Your task to perform on an android device: Add "macbook air" to the cart on bestbuy Image 0: 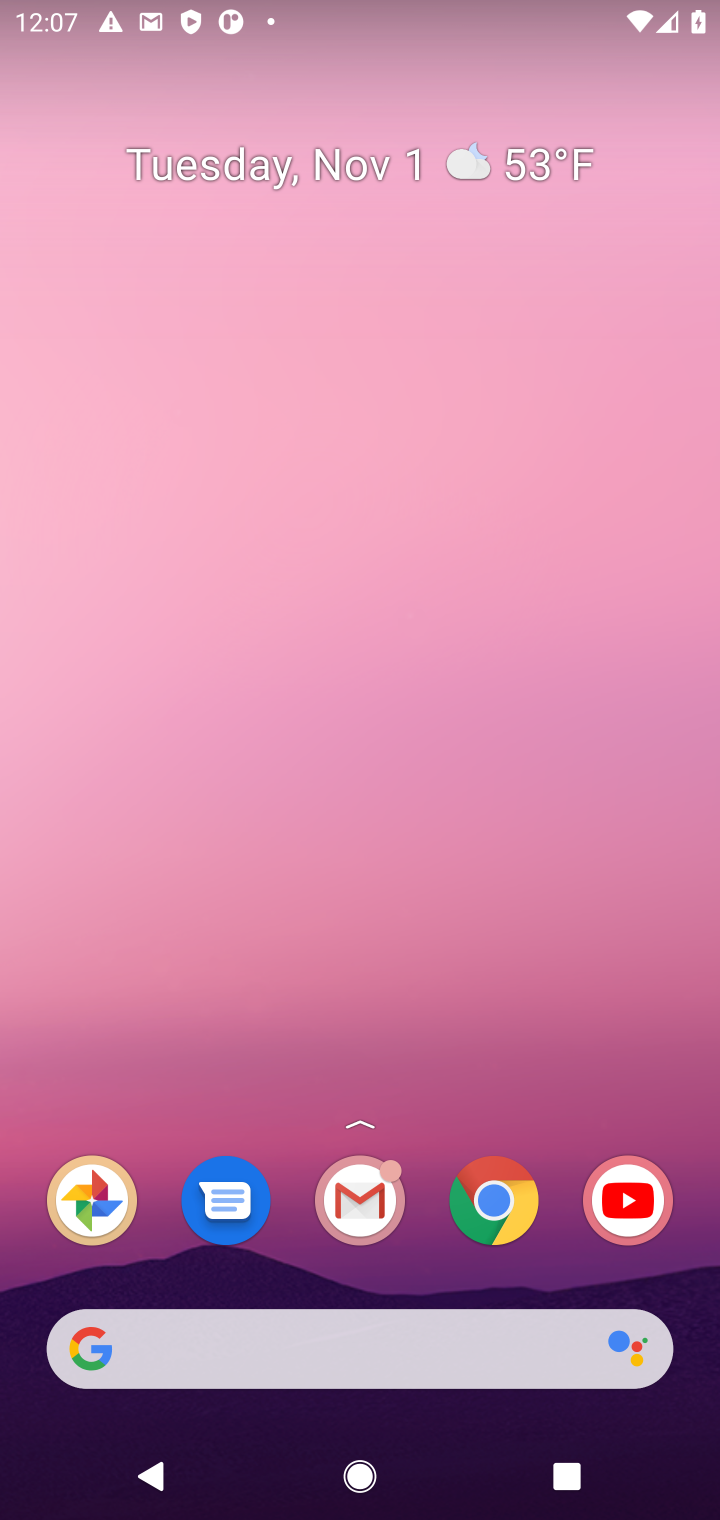
Step 0: click (491, 1205)
Your task to perform on an android device: Add "macbook air" to the cart on bestbuy Image 1: 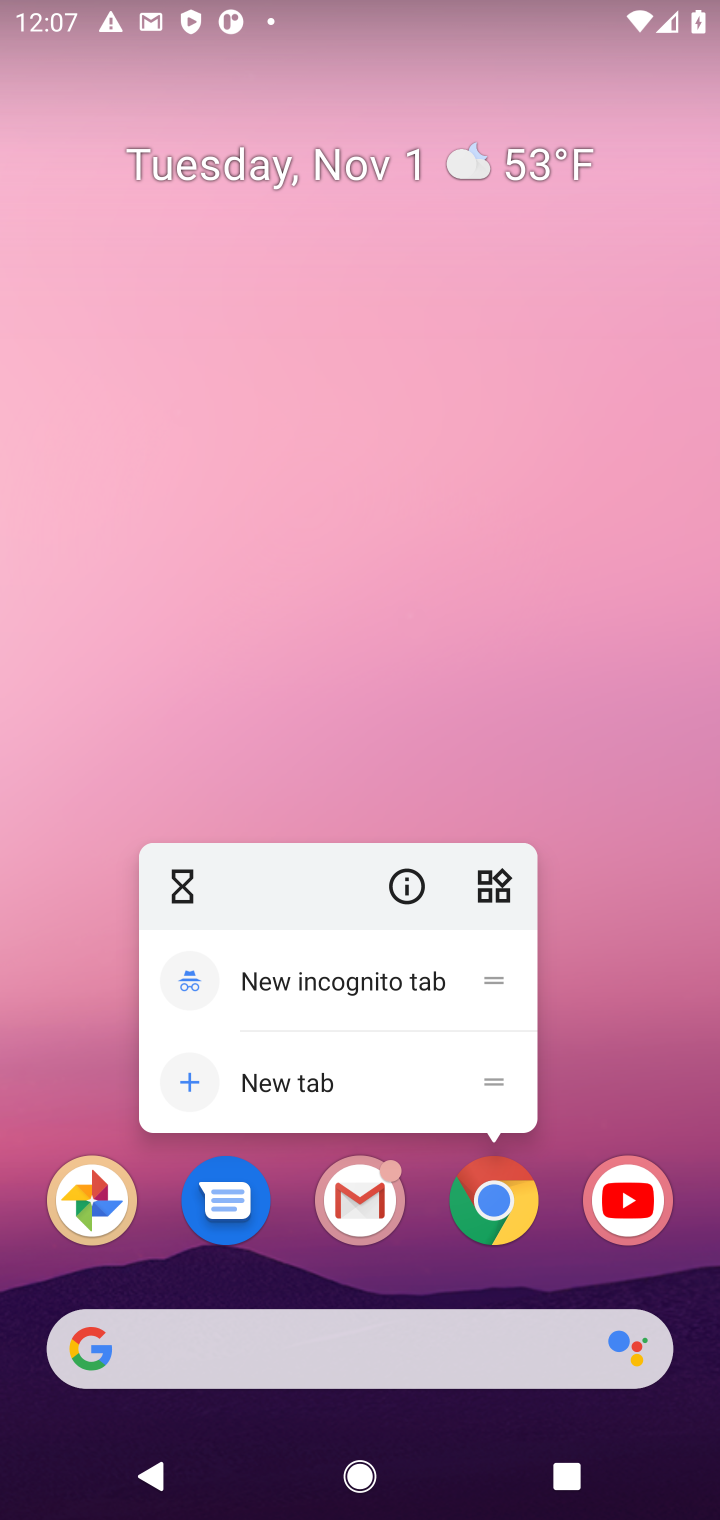
Step 1: click (493, 1193)
Your task to perform on an android device: Add "macbook air" to the cart on bestbuy Image 2: 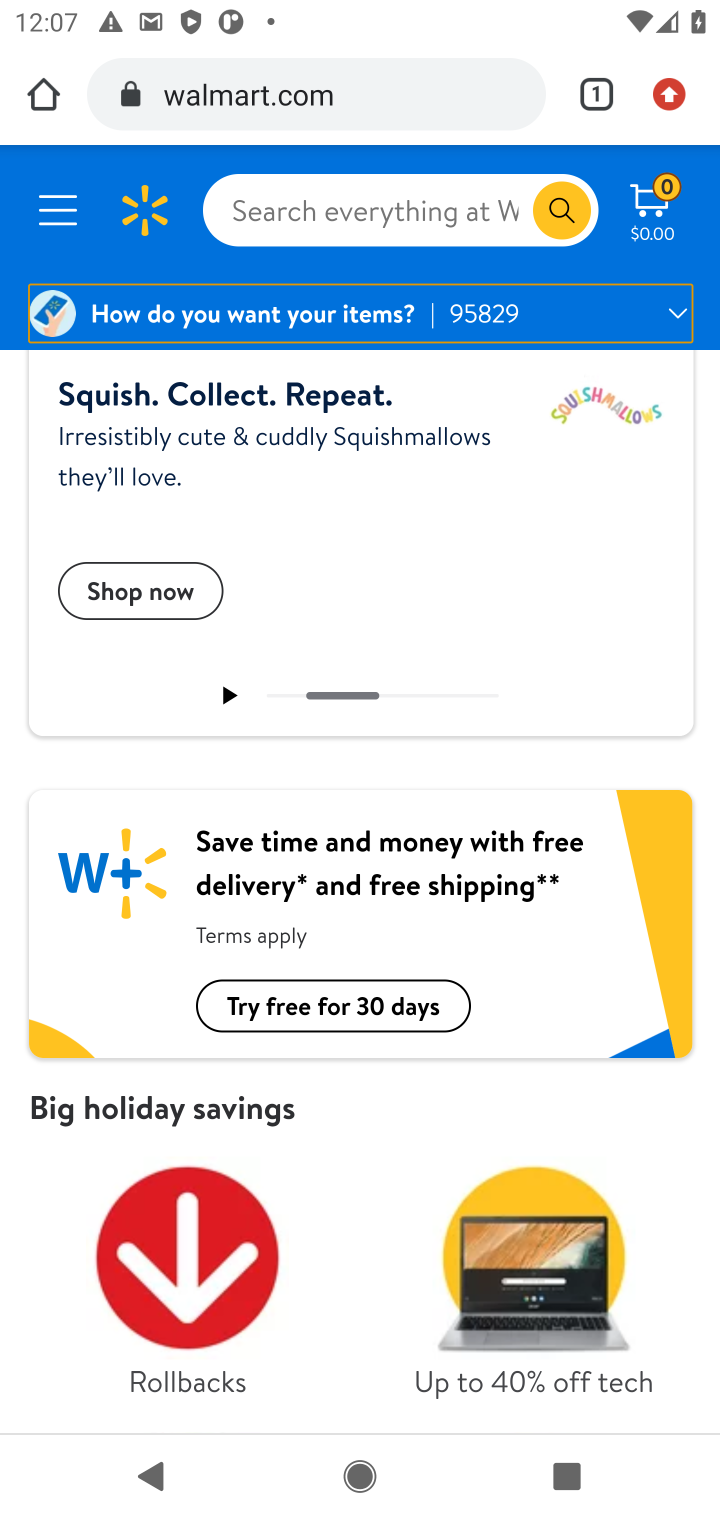
Step 2: click (282, 117)
Your task to perform on an android device: Add "macbook air" to the cart on bestbuy Image 3: 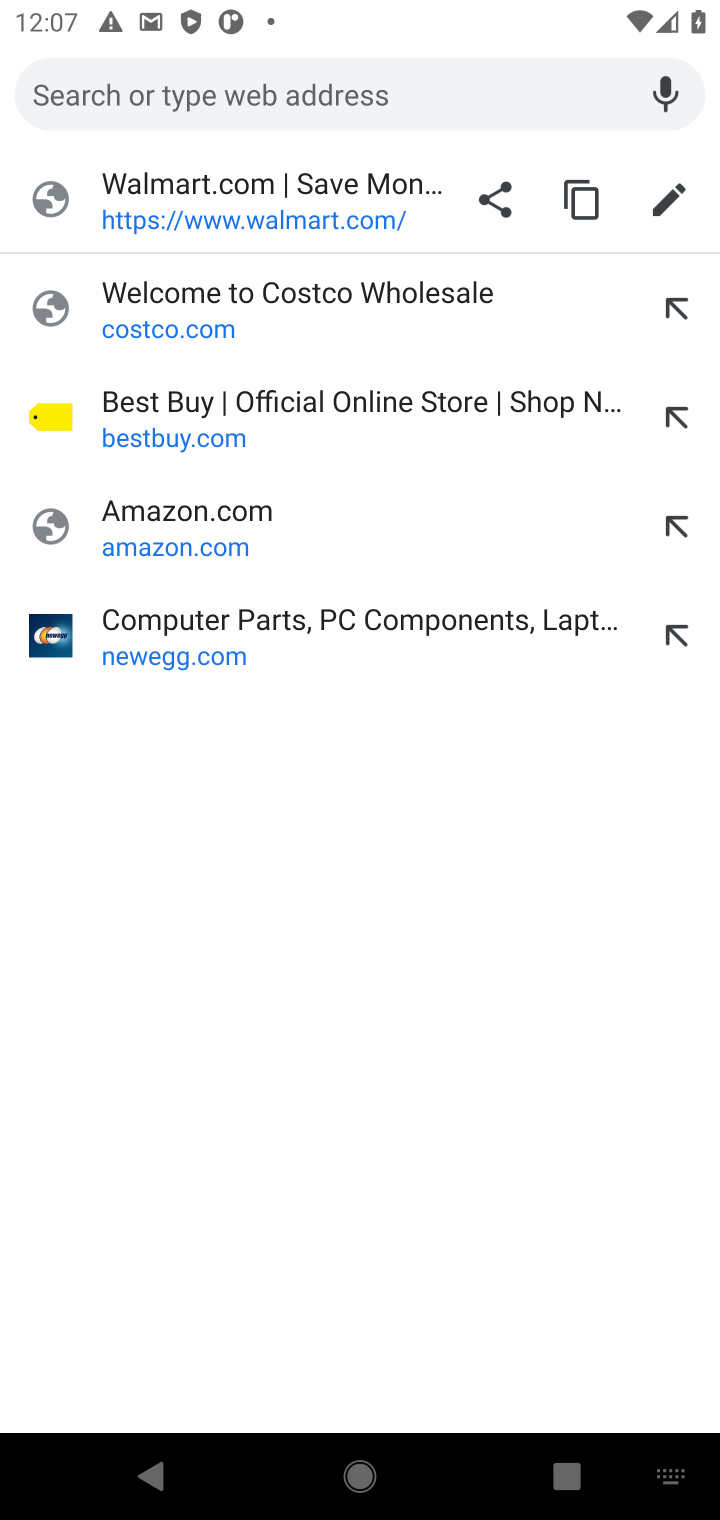
Step 3: click (231, 414)
Your task to perform on an android device: Add "macbook air" to the cart on bestbuy Image 4: 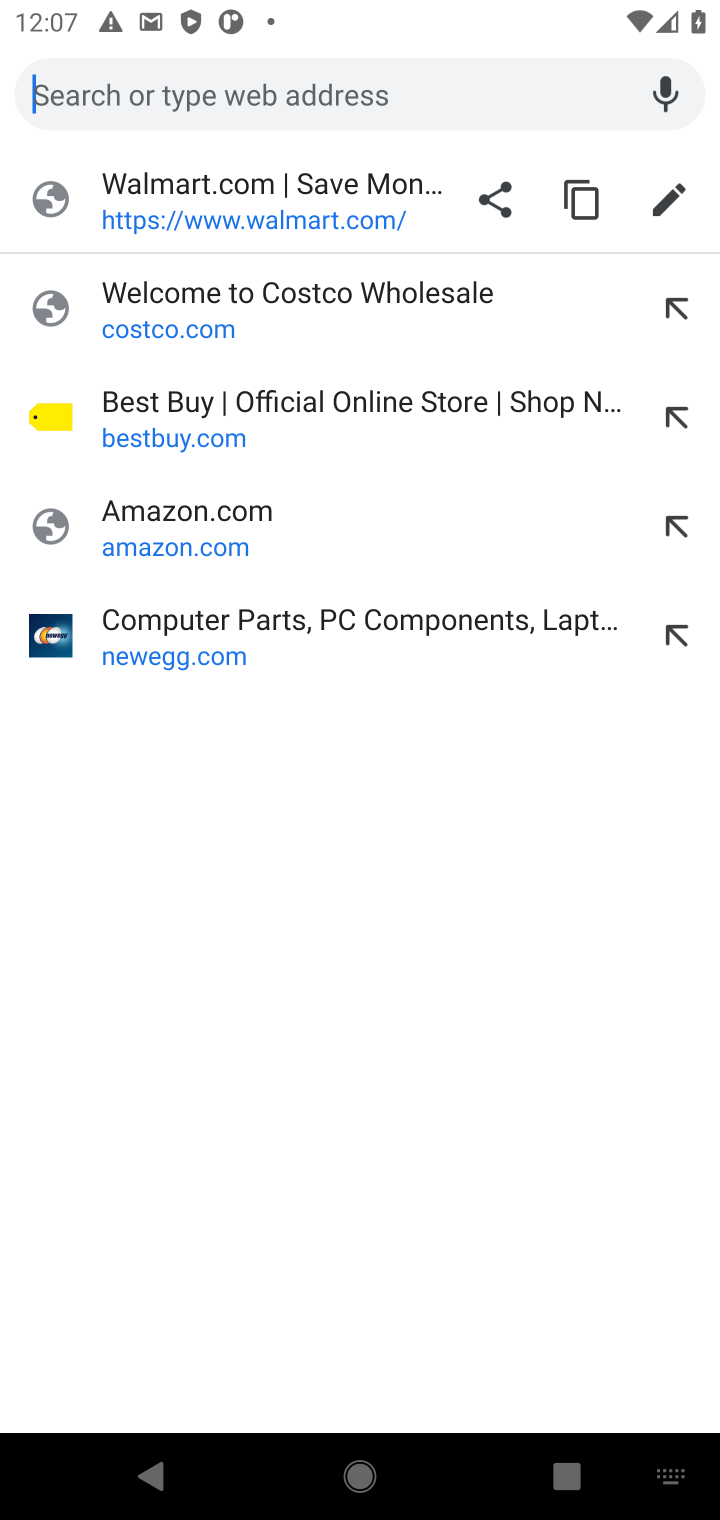
Step 4: click (233, 429)
Your task to perform on an android device: Add "macbook air" to the cart on bestbuy Image 5: 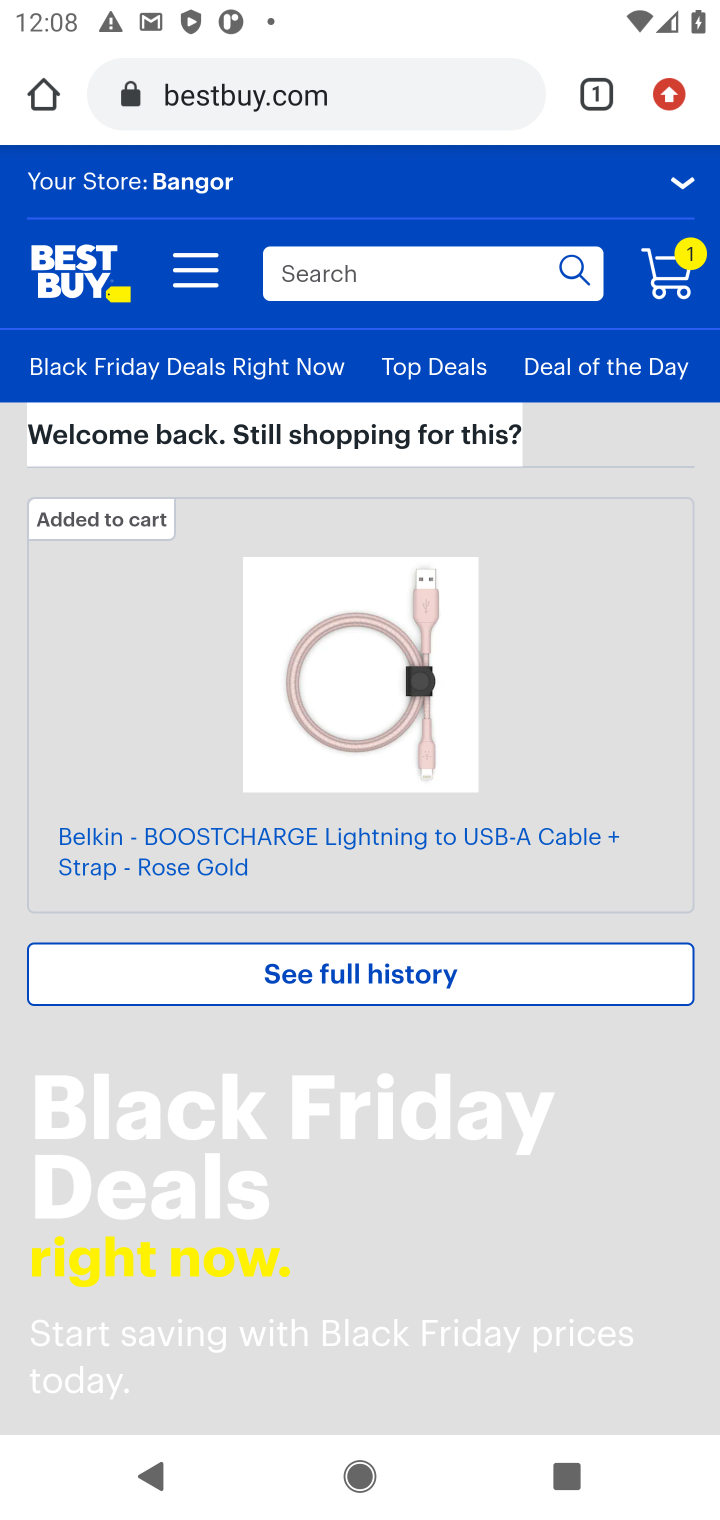
Step 5: click (477, 265)
Your task to perform on an android device: Add "macbook air" to the cart on bestbuy Image 6: 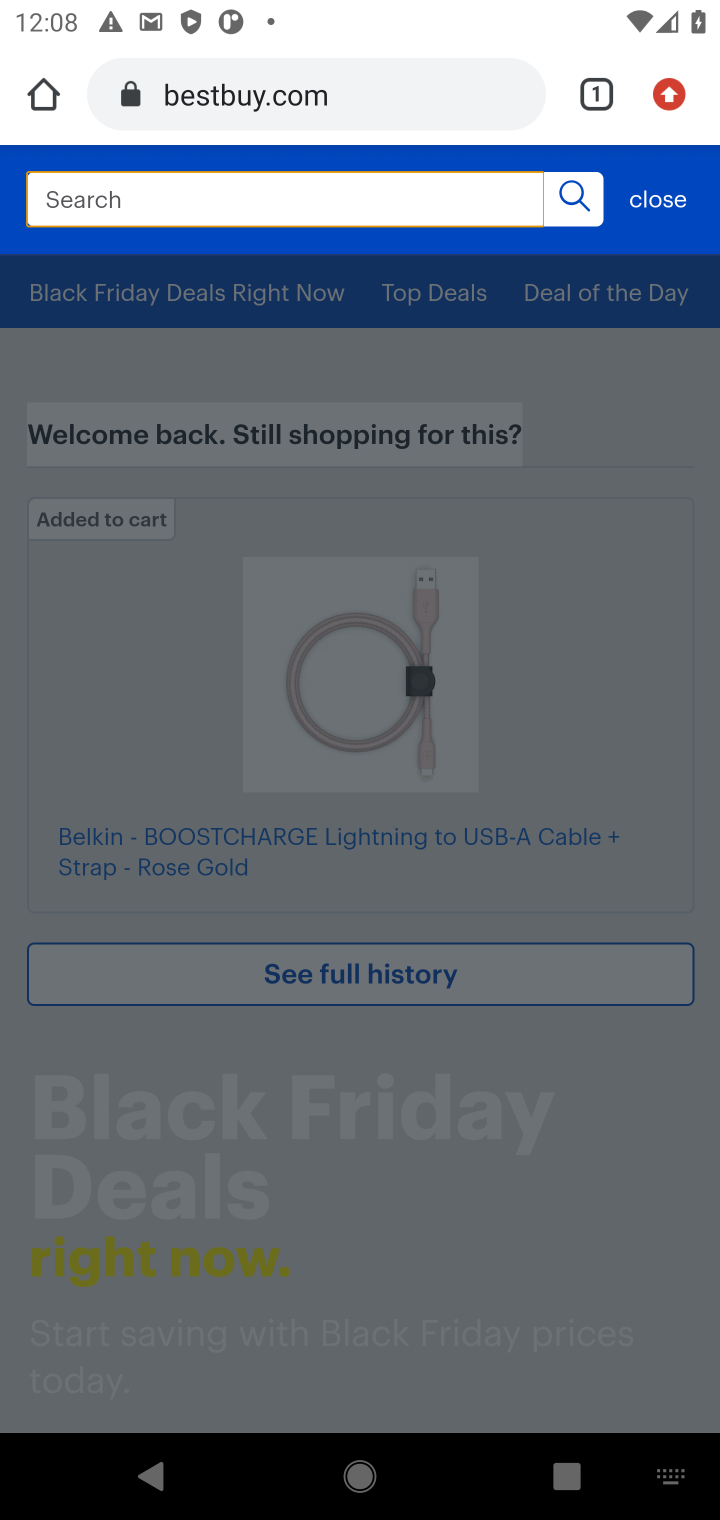
Step 6: type "macbook air"
Your task to perform on an android device: Add "macbook air" to the cart on bestbuy Image 7: 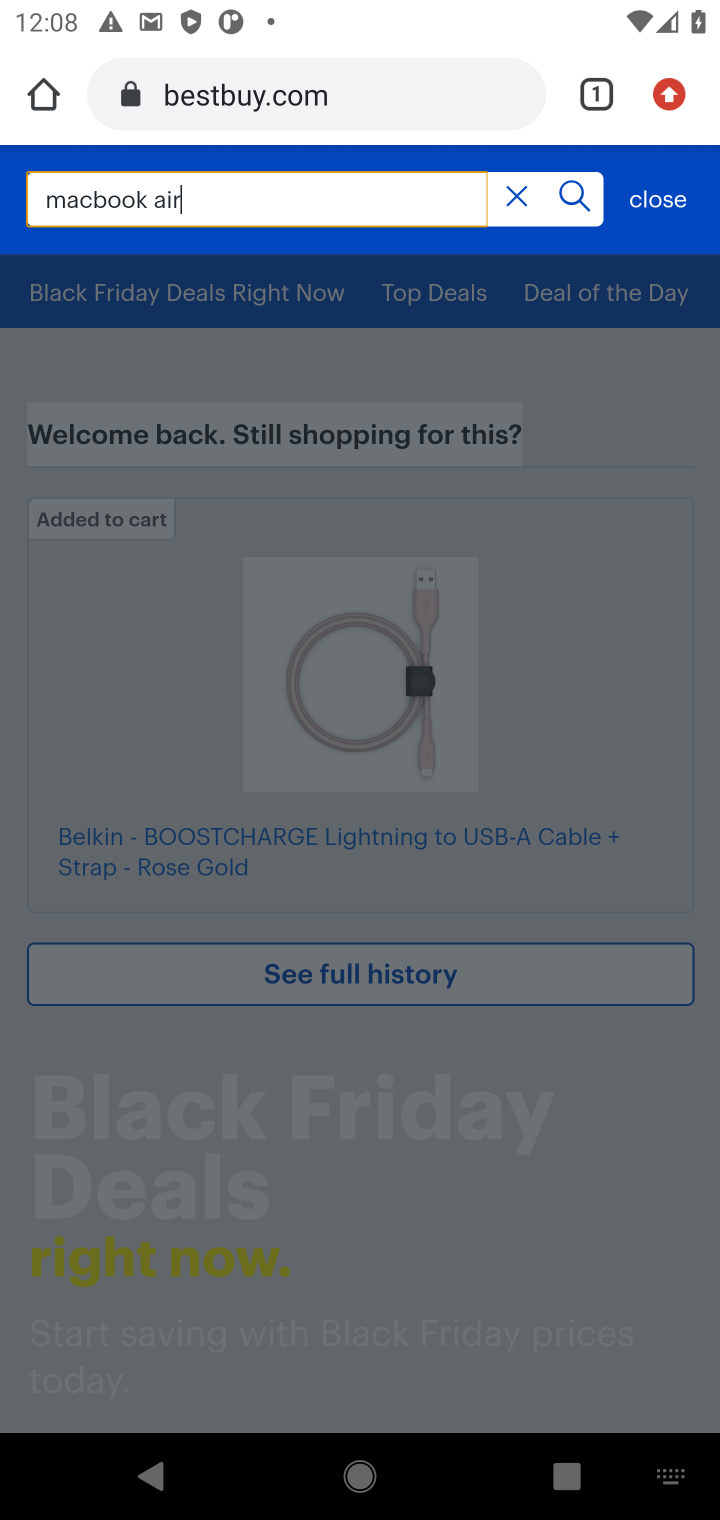
Step 7: type ""
Your task to perform on an android device: Add "macbook air" to the cart on bestbuy Image 8: 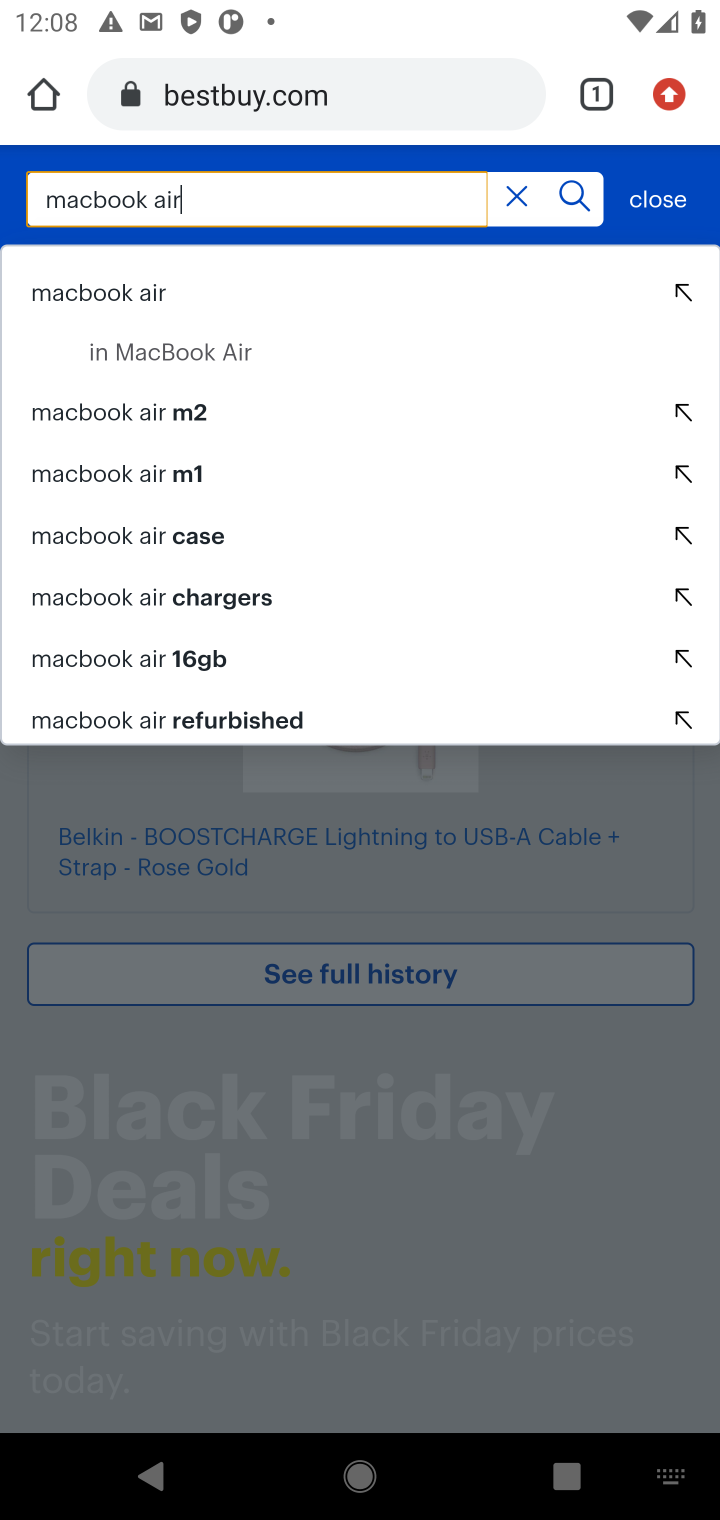
Step 8: click (190, 297)
Your task to perform on an android device: Add "macbook air" to the cart on bestbuy Image 9: 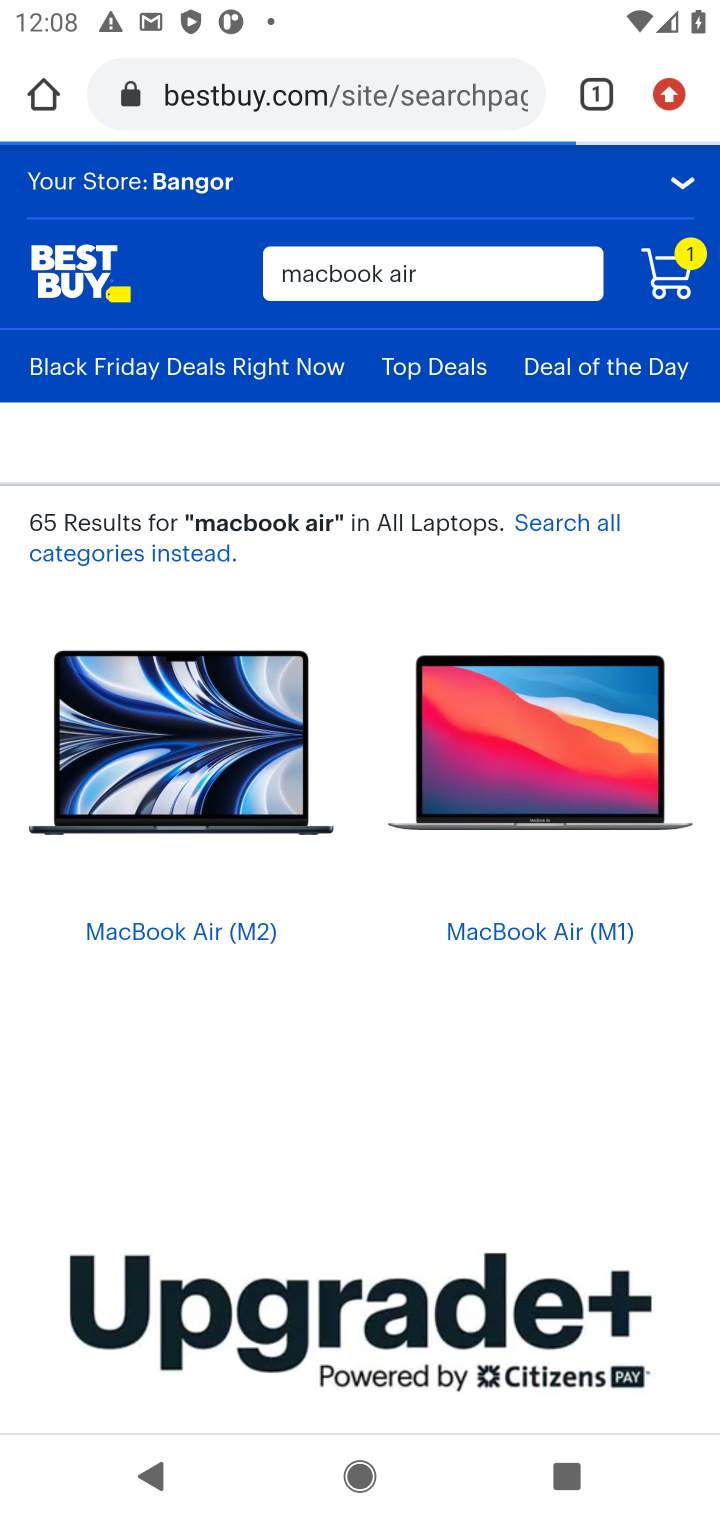
Step 9: click (217, 781)
Your task to perform on an android device: Add "macbook air" to the cart on bestbuy Image 10: 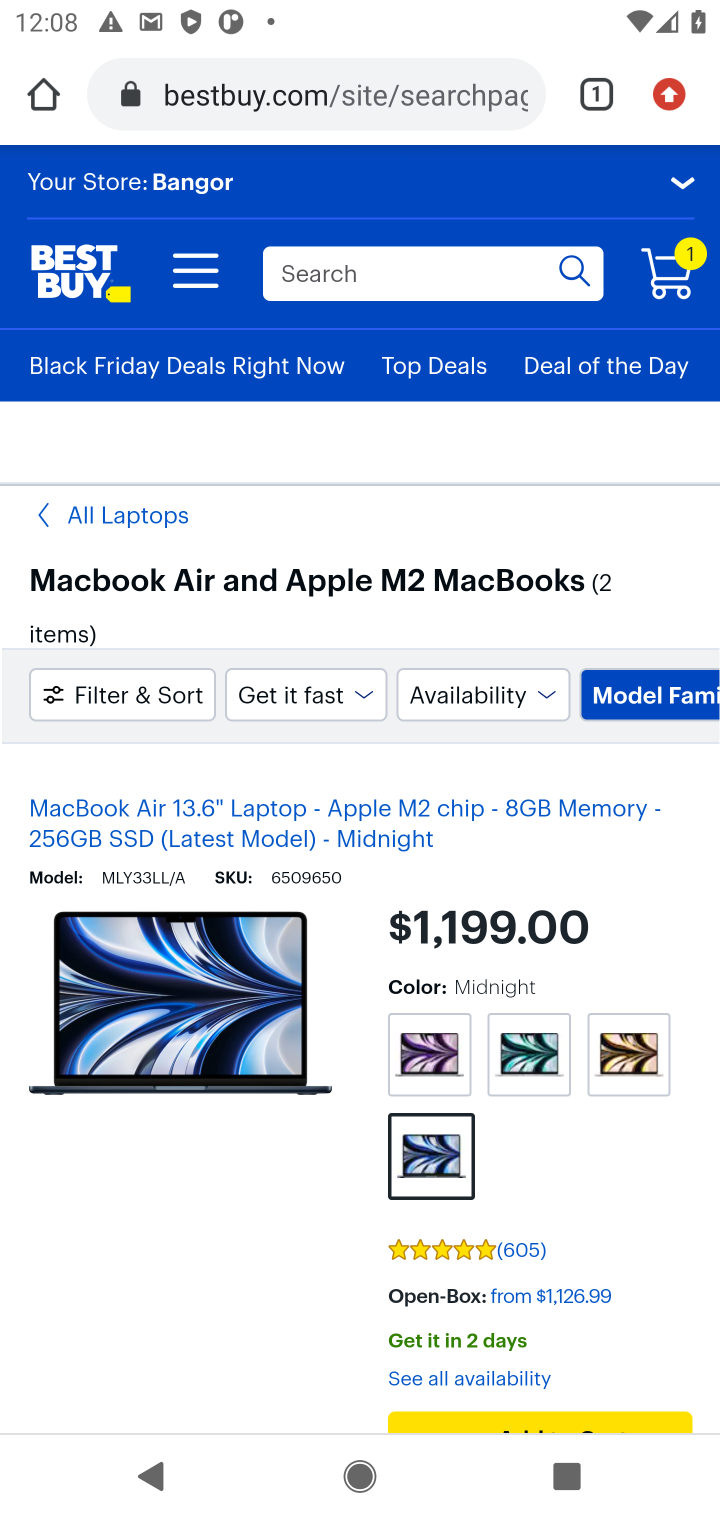
Step 10: drag from (343, 1102) to (411, 607)
Your task to perform on an android device: Add "macbook air" to the cart on bestbuy Image 11: 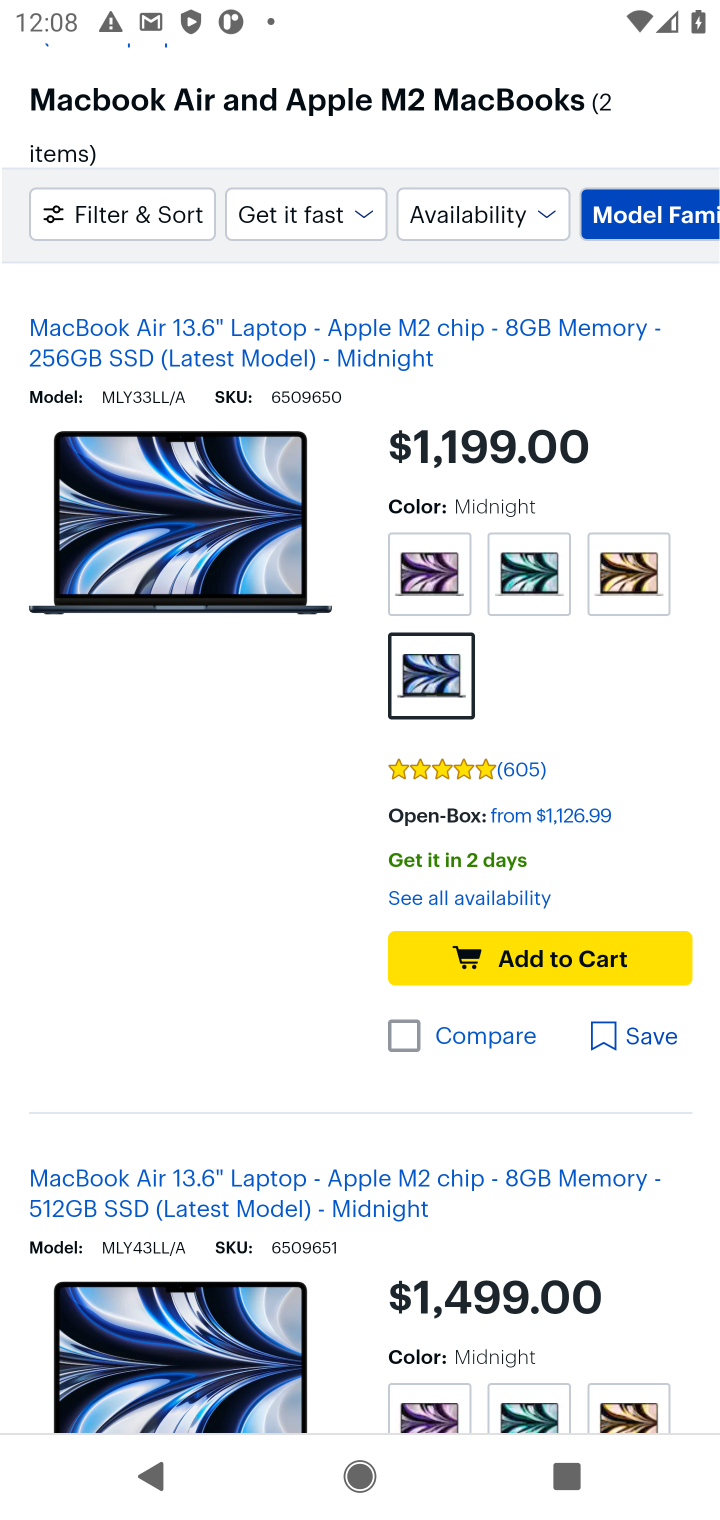
Step 11: click (313, 1070)
Your task to perform on an android device: Add "macbook air" to the cart on bestbuy Image 12: 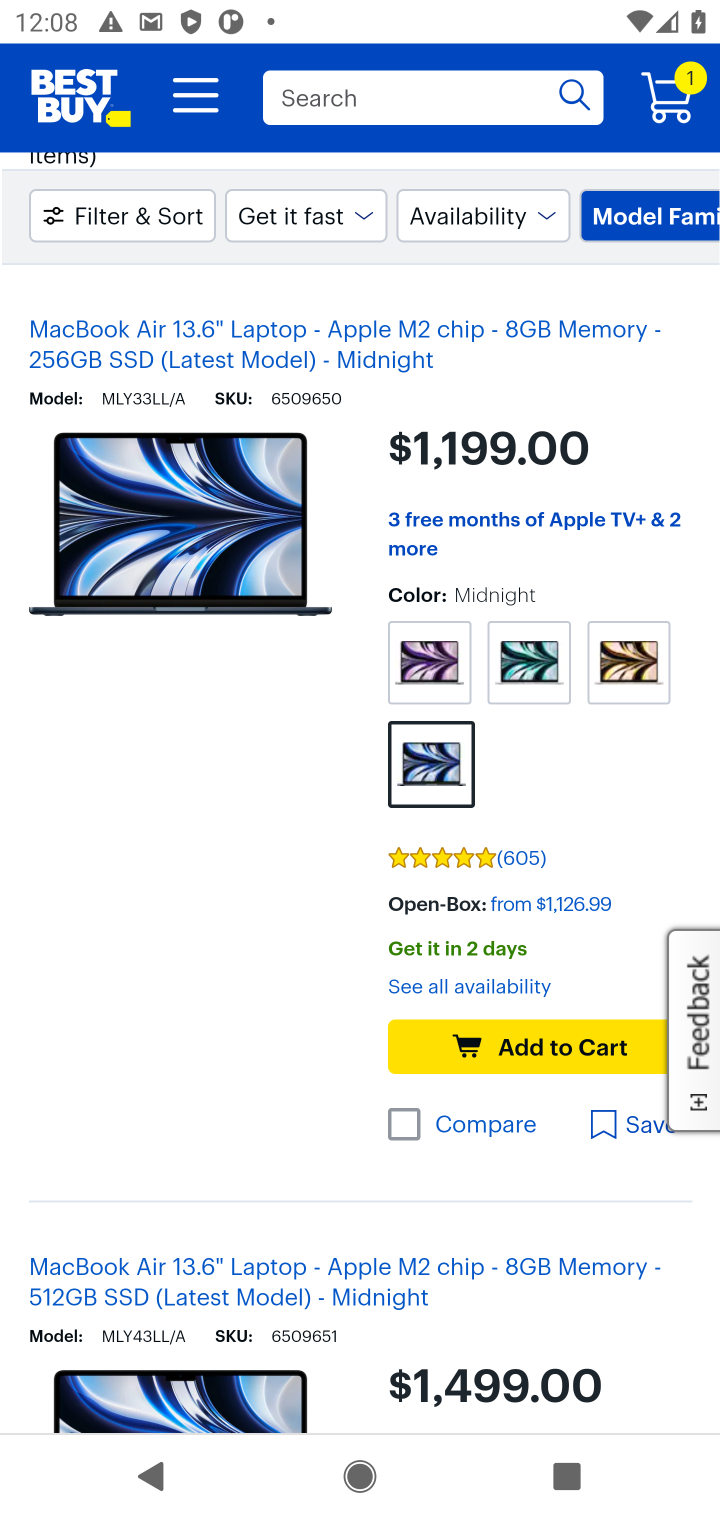
Step 12: click (504, 1019)
Your task to perform on an android device: Add "macbook air" to the cart on bestbuy Image 13: 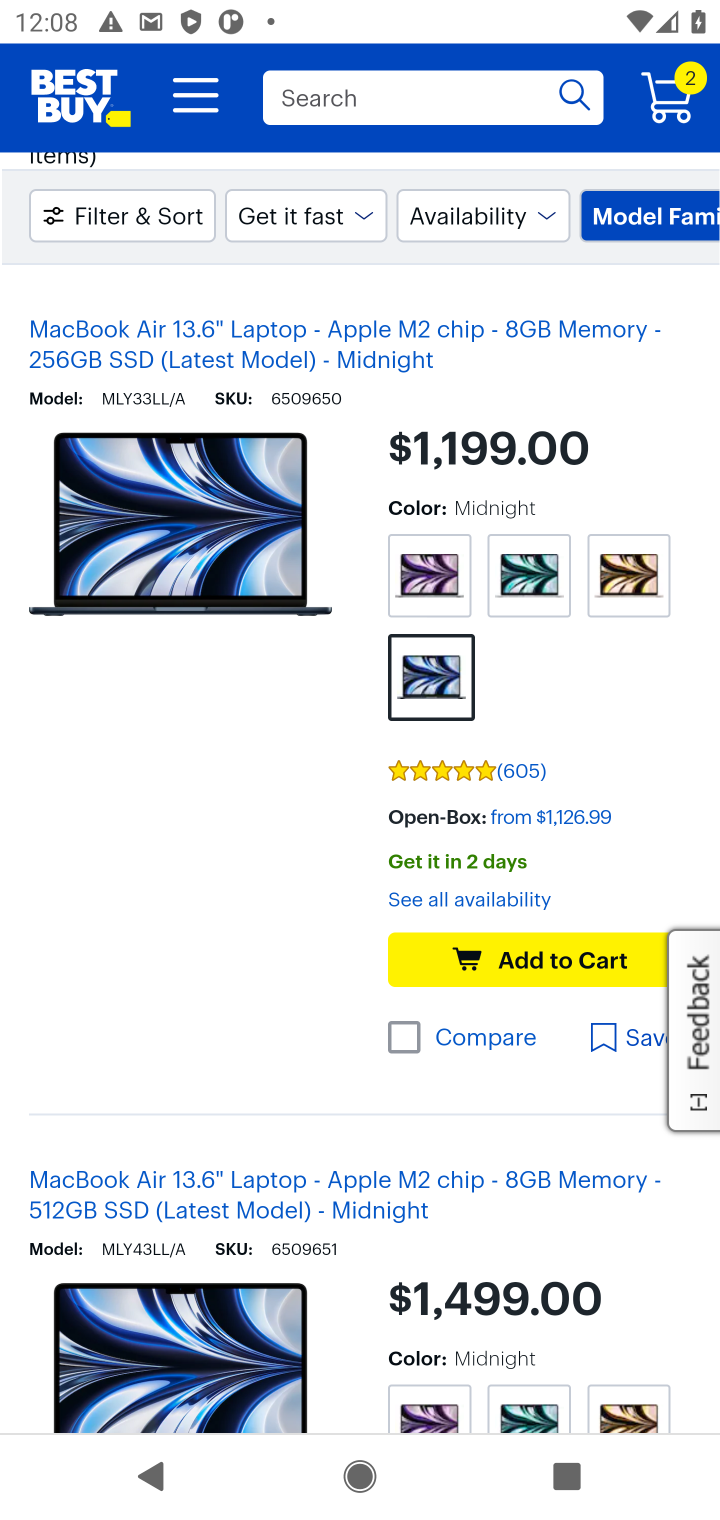
Step 13: click (698, 101)
Your task to perform on an android device: Add "macbook air" to the cart on bestbuy Image 14: 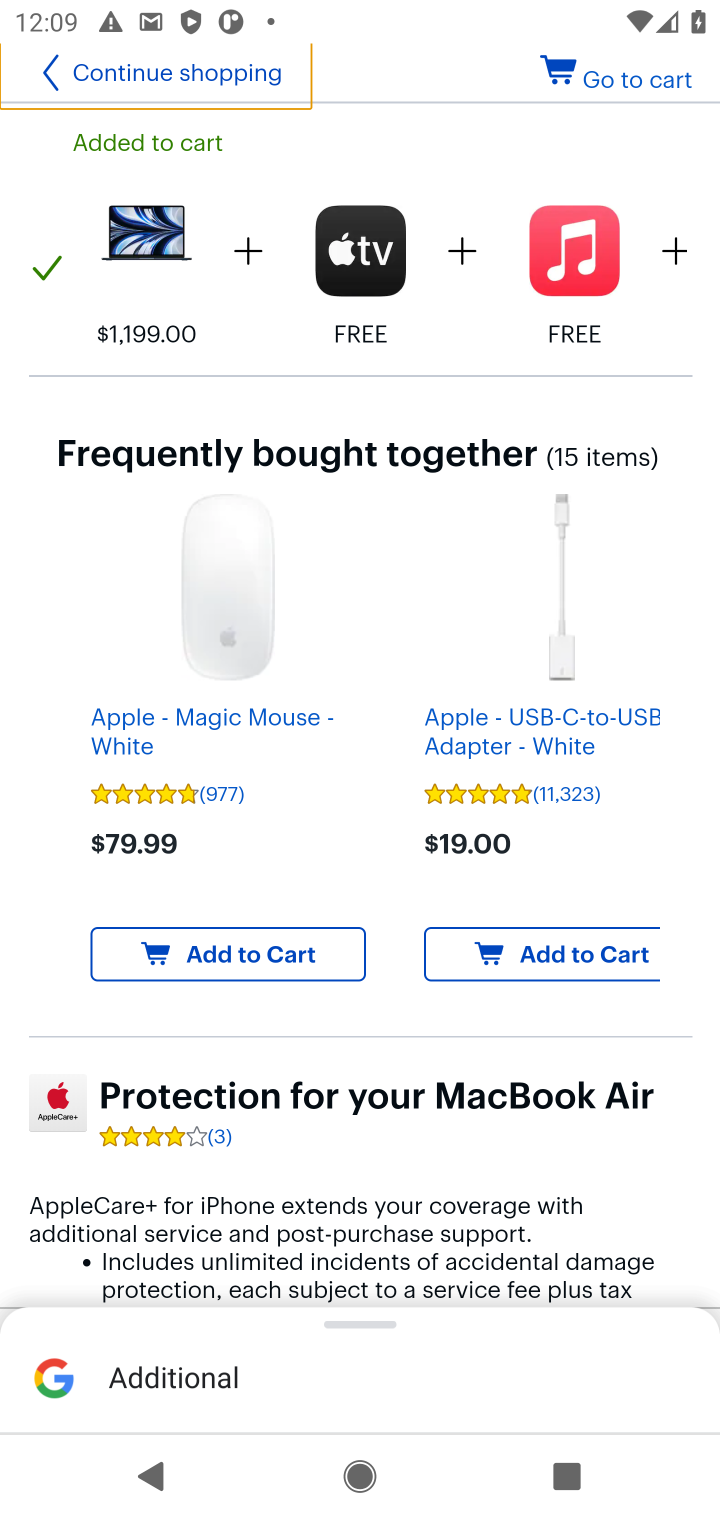
Step 14: drag from (209, 798) to (301, 262)
Your task to perform on an android device: Add "macbook air" to the cart on bestbuy Image 15: 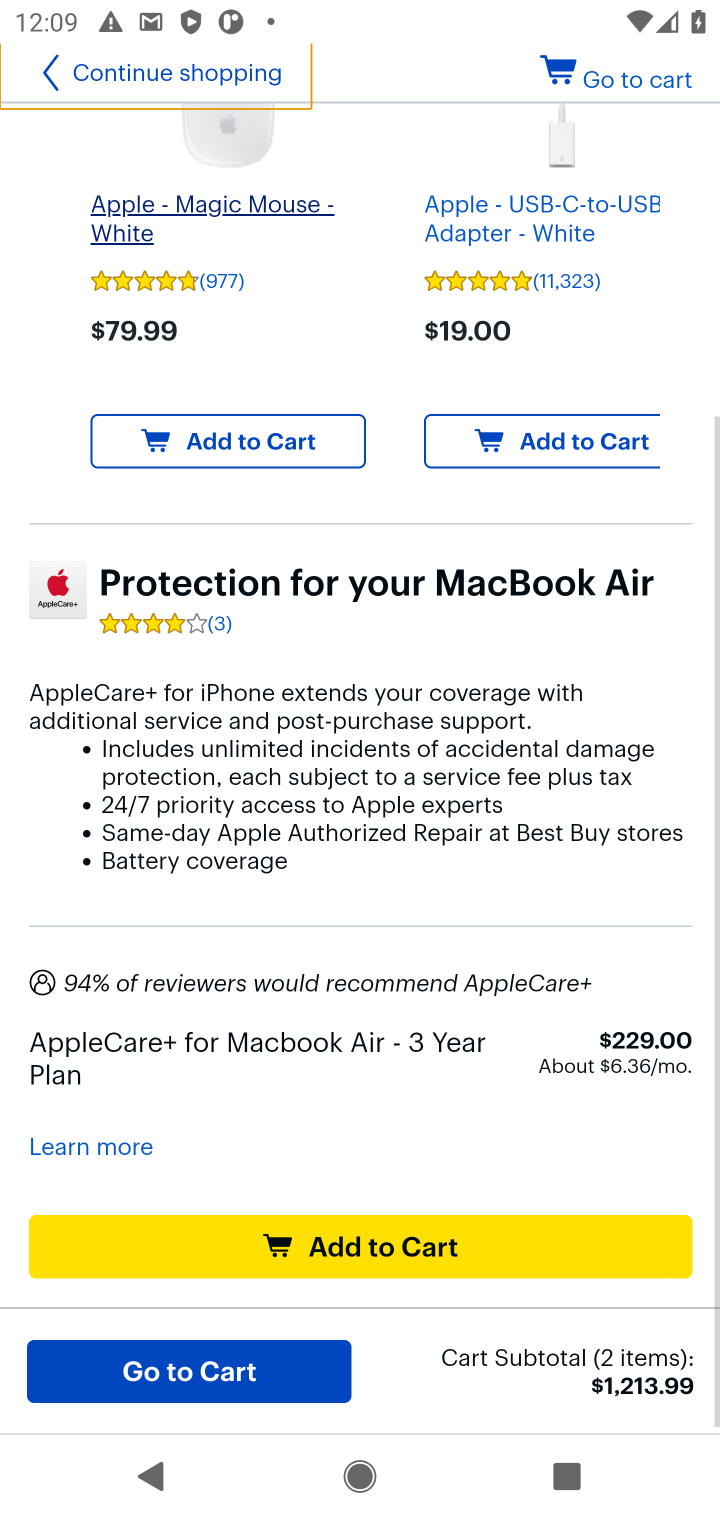
Step 15: click (107, 1346)
Your task to perform on an android device: Add "macbook air" to the cart on bestbuy Image 16: 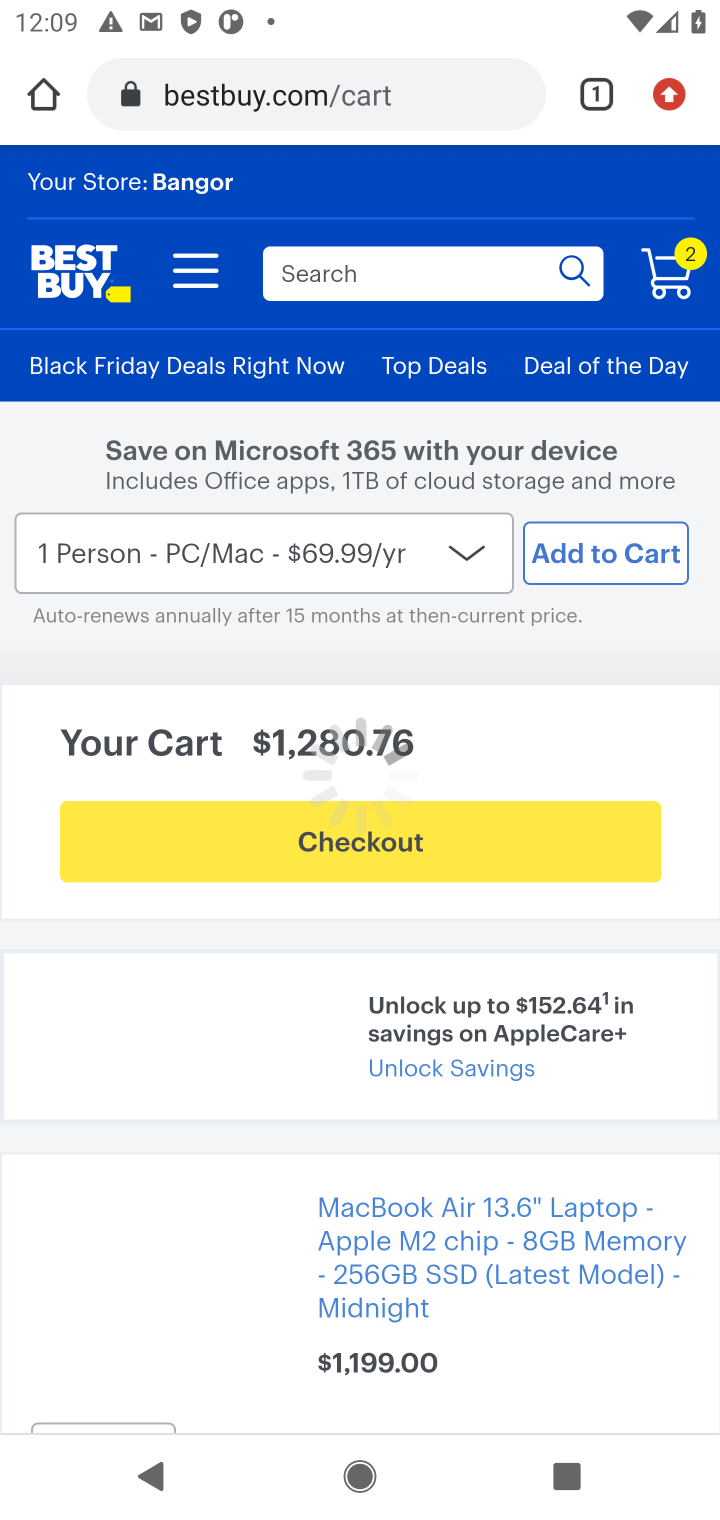
Step 16: task complete